Your task to perform on an android device: toggle wifi Image 0: 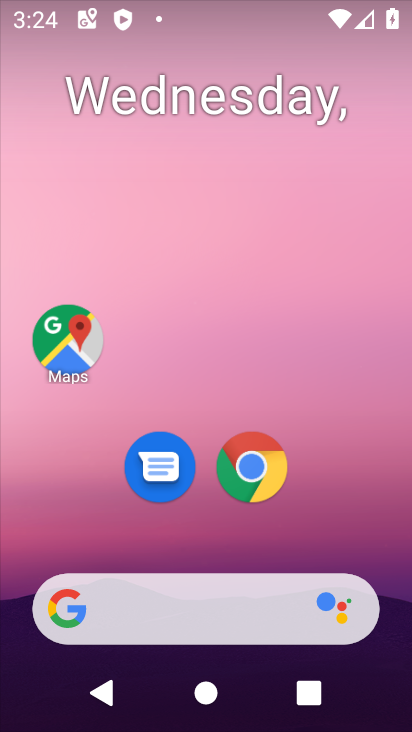
Step 0: drag from (390, 595) to (367, 183)
Your task to perform on an android device: toggle wifi Image 1: 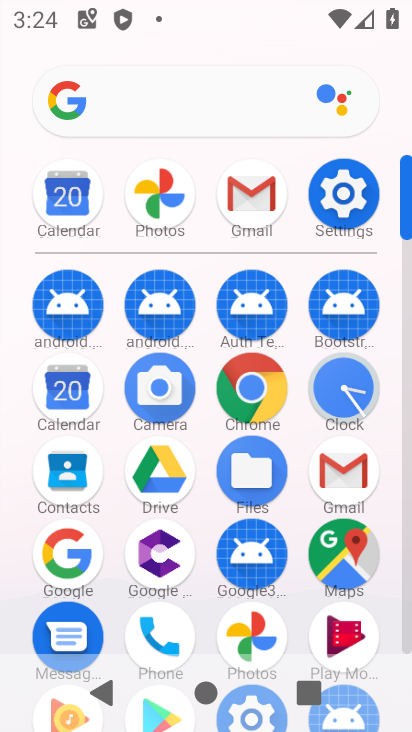
Step 1: click (409, 645)
Your task to perform on an android device: toggle wifi Image 2: 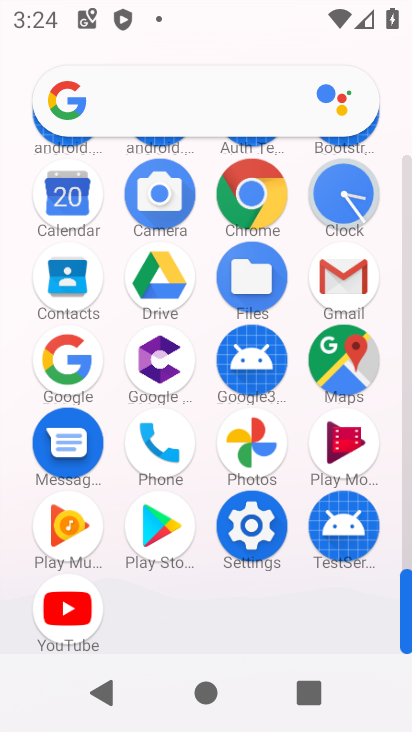
Step 2: click (253, 522)
Your task to perform on an android device: toggle wifi Image 3: 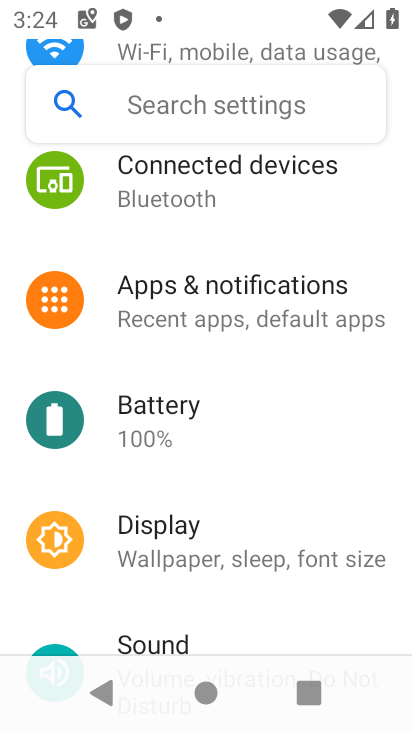
Step 3: drag from (348, 275) to (328, 466)
Your task to perform on an android device: toggle wifi Image 4: 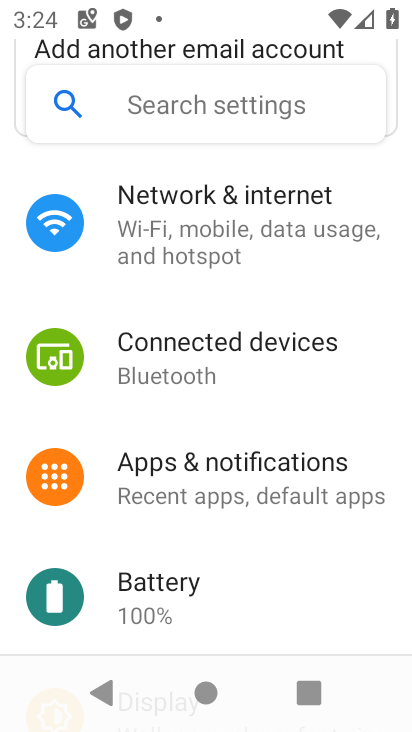
Step 4: click (165, 226)
Your task to perform on an android device: toggle wifi Image 5: 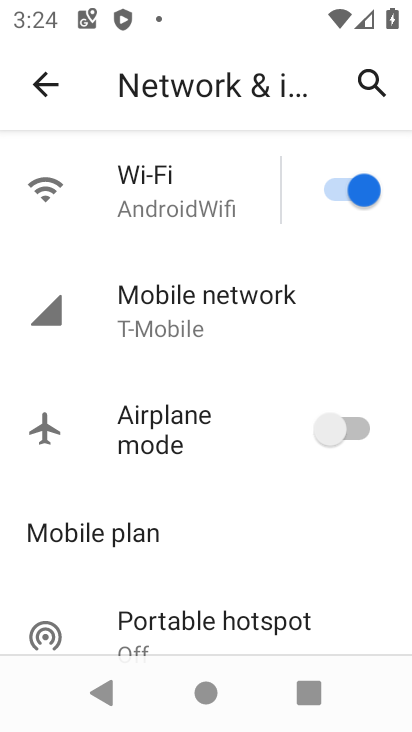
Step 5: click (328, 182)
Your task to perform on an android device: toggle wifi Image 6: 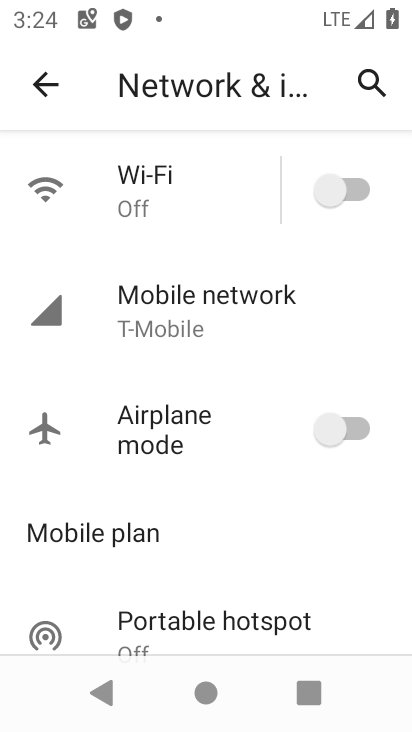
Step 6: task complete